Your task to perform on an android device: change text size in settings app Image 0: 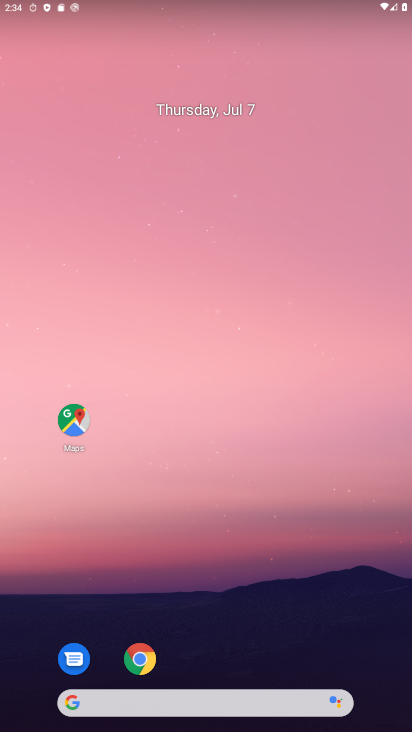
Step 0: drag from (16, 687) to (62, 143)
Your task to perform on an android device: change text size in settings app Image 1: 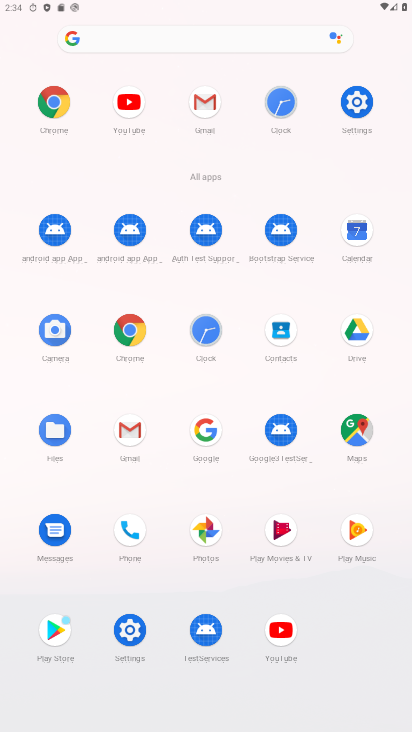
Step 1: click (121, 640)
Your task to perform on an android device: change text size in settings app Image 2: 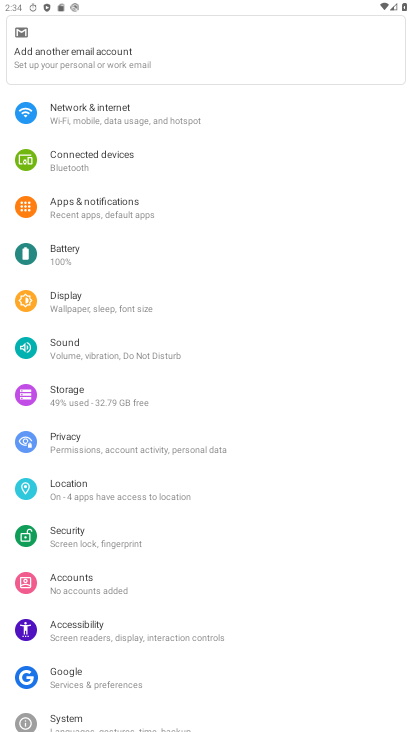
Step 2: click (71, 301)
Your task to perform on an android device: change text size in settings app Image 3: 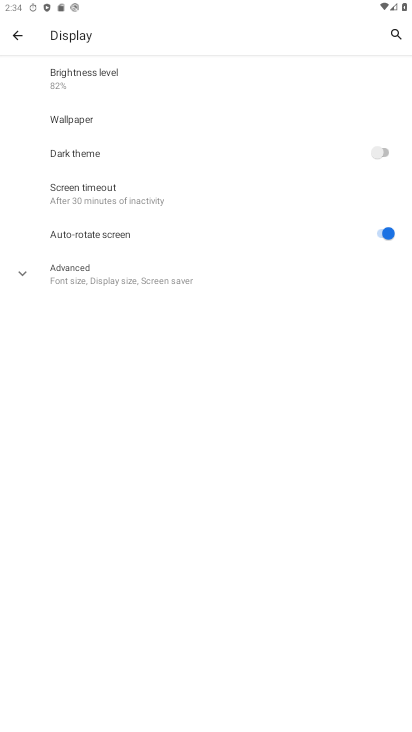
Step 3: click (79, 269)
Your task to perform on an android device: change text size in settings app Image 4: 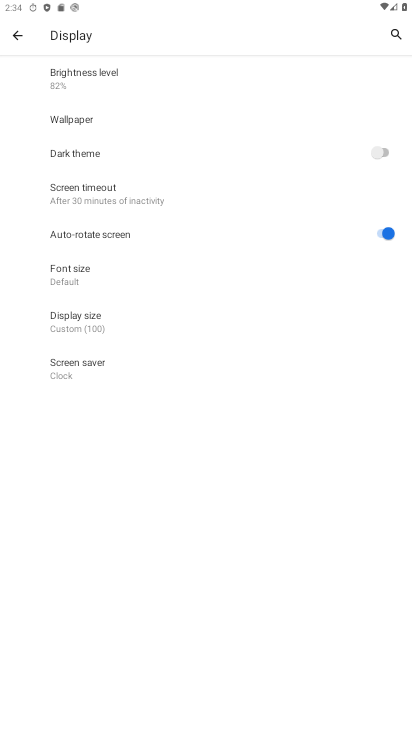
Step 4: click (73, 275)
Your task to perform on an android device: change text size in settings app Image 5: 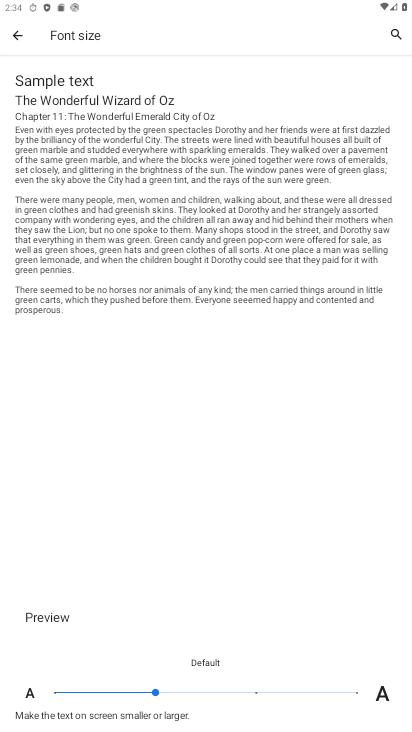
Step 5: drag from (251, 690) to (299, 675)
Your task to perform on an android device: change text size in settings app Image 6: 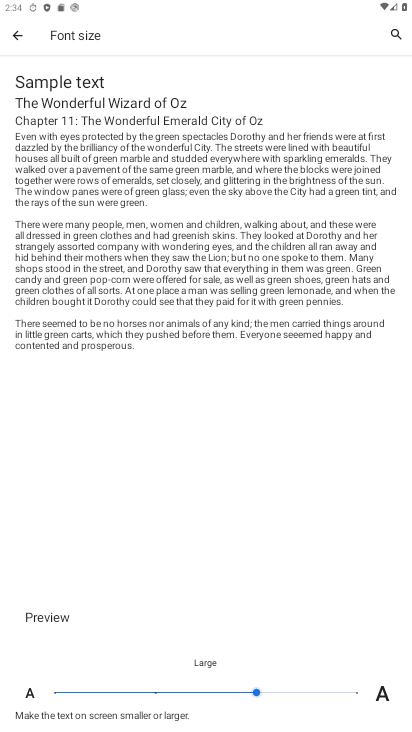
Step 6: drag from (151, 691) to (332, 705)
Your task to perform on an android device: change text size in settings app Image 7: 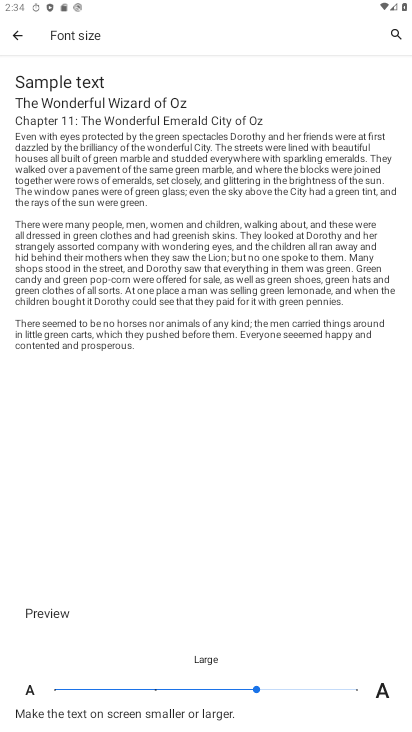
Step 7: drag from (268, 690) to (332, 699)
Your task to perform on an android device: change text size in settings app Image 8: 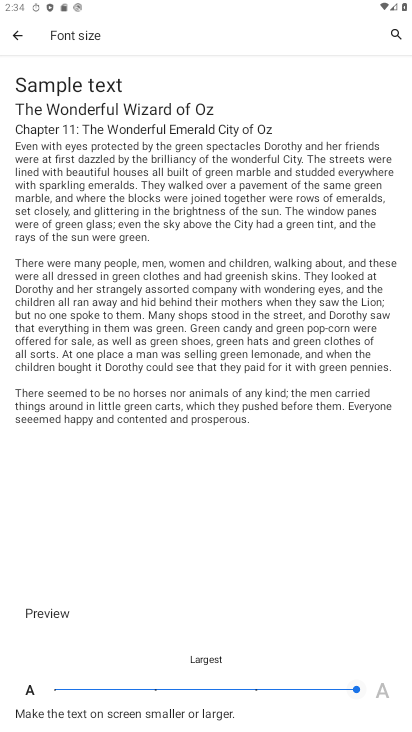
Step 8: click (314, 687)
Your task to perform on an android device: change text size in settings app Image 9: 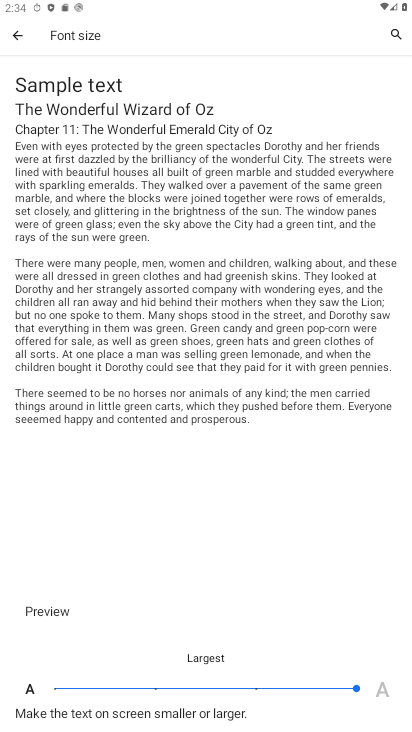
Step 9: task complete